Your task to perform on an android device: Add razer kraken to the cart on ebay, then select checkout. Image 0: 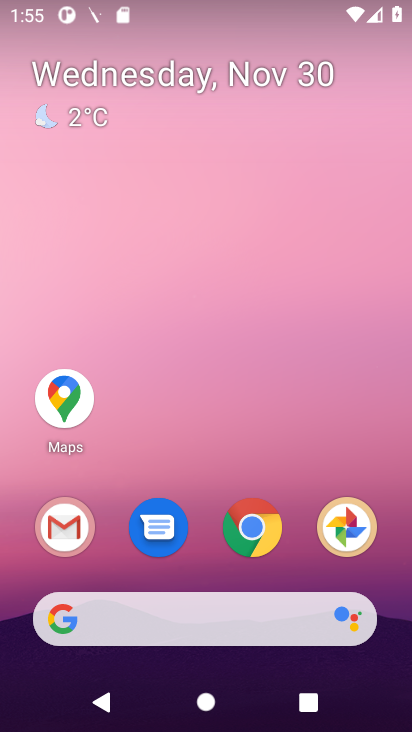
Step 0: click (254, 527)
Your task to perform on an android device: Add razer kraken to the cart on ebay, then select checkout. Image 1: 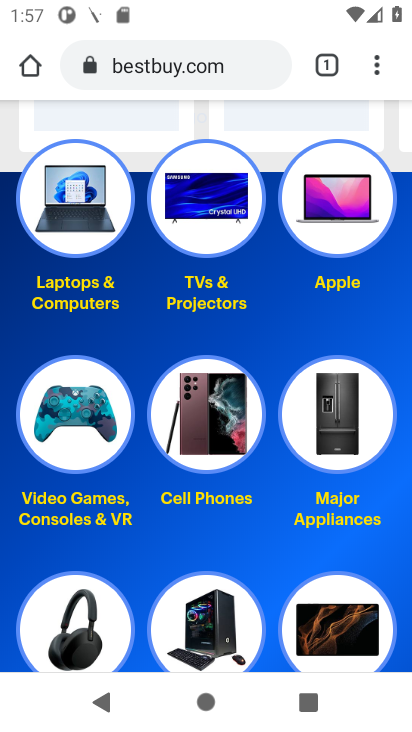
Step 1: task complete